Your task to perform on an android device: make emails show in primary in the gmail app Image 0: 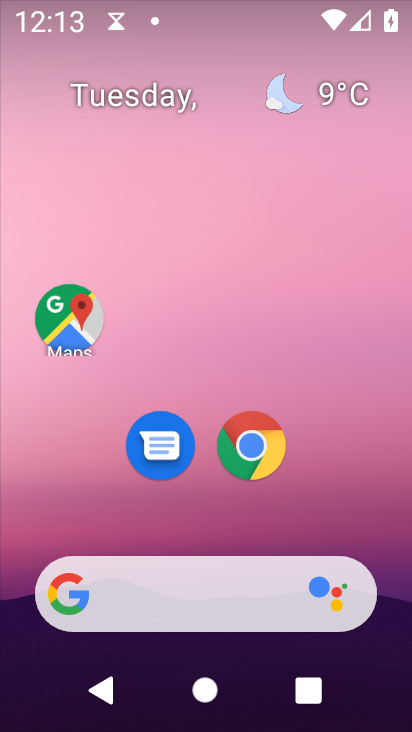
Step 0: drag from (212, 663) to (266, 88)
Your task to perform on an android device: make emails show in primary in the gmail app Image 1: 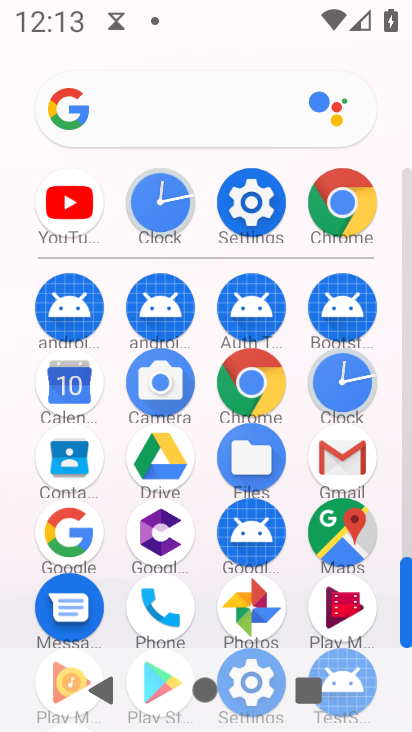
Step 1: click (324, 451)
Your task to perform on an android device: make emails show in primary in the gmail app Image 2: 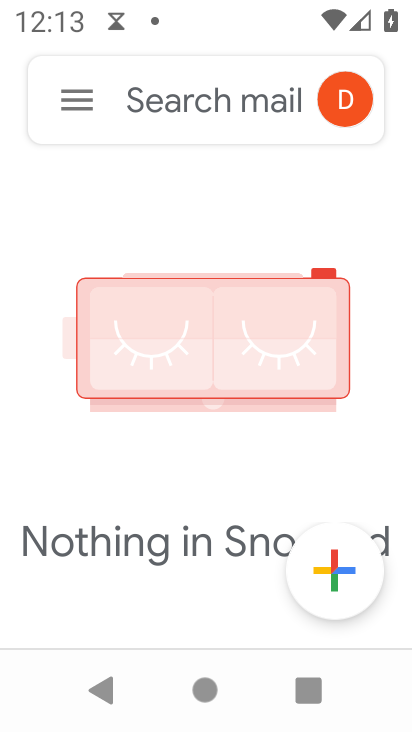
Step 2: click (80, 101)
Your task to perform on an android device: make emails show in primary in the gmail app Image 3: 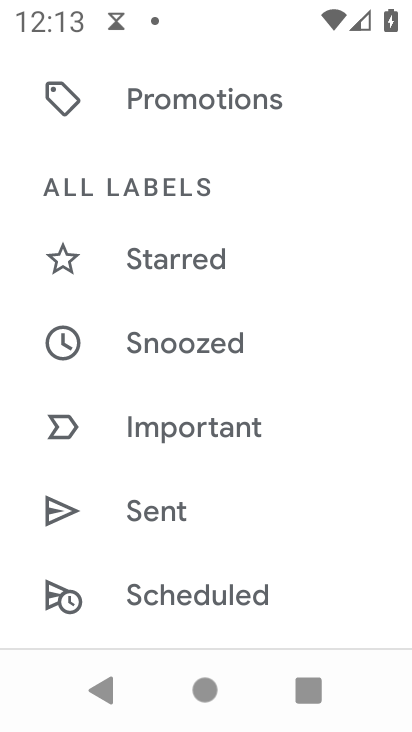
Step 3: drag from (119, 214) to (151, 658)
Your task to perform on an android device: make emails show in primary in the gmail app Image 4: 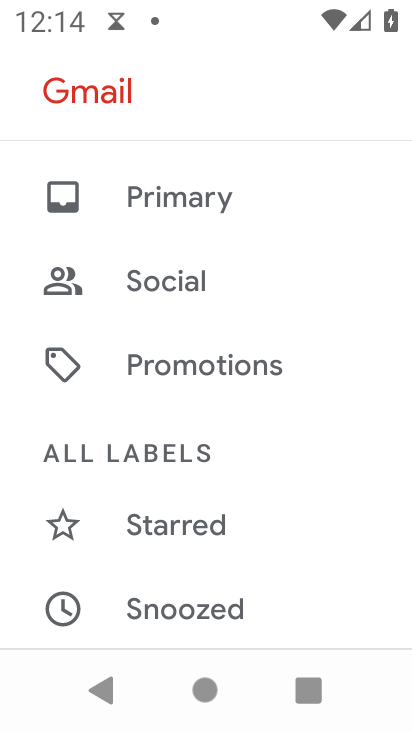
Step 4: click (179, 207)
Your task to perform on an android device: make emails show in primary in the gmail app Image 5: 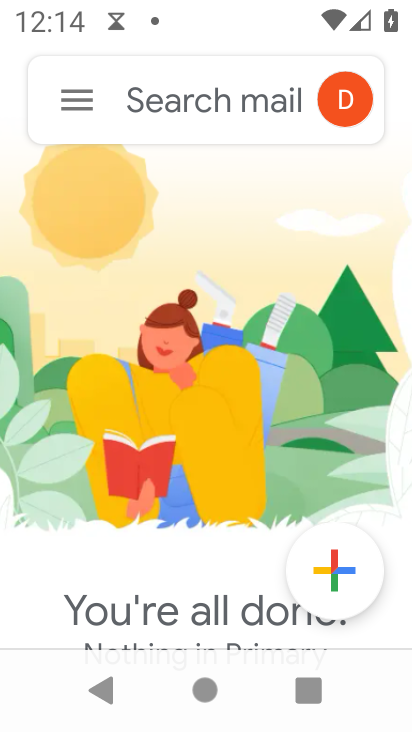
Step 5: task complete